Your task to perform on an android device: Open display settings Image 0: 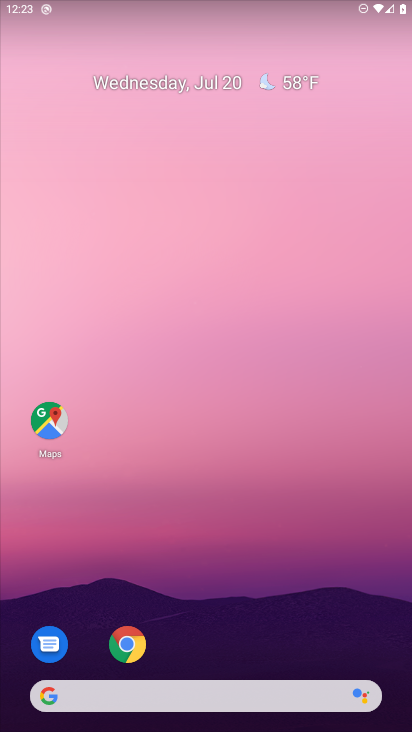
Step 0: drag from (48, 667) to (274, 175)
Your task to perform on an android device: Open display settings Image 1: 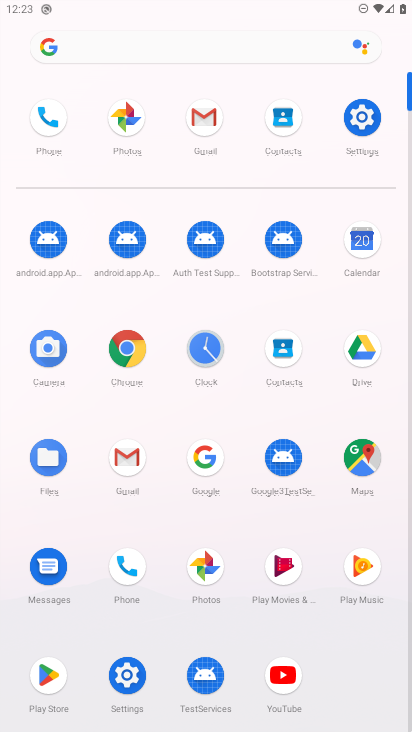
Step 1: click (102, 686)
Your task to perform on an android device: Open display settings Image 2: 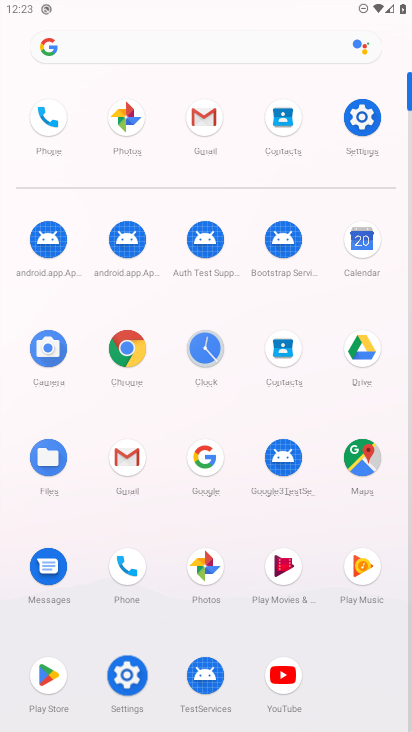
Step 2: click (126, 684)
Your task to perform on an android device: Open display settings Image 3: 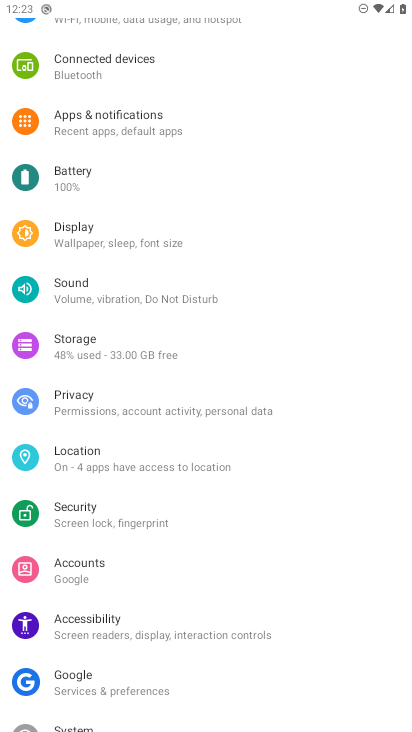
Step 3: drag from (270, 105) to (287, 703)
Your task to perform on an android device: Open display settings Image 4: 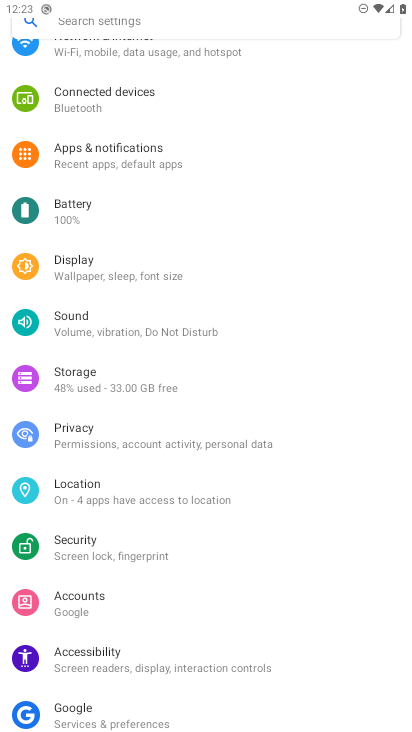
Step 4: click (60, 270)
Your task to perform on an android device: Open display settings Image 5: 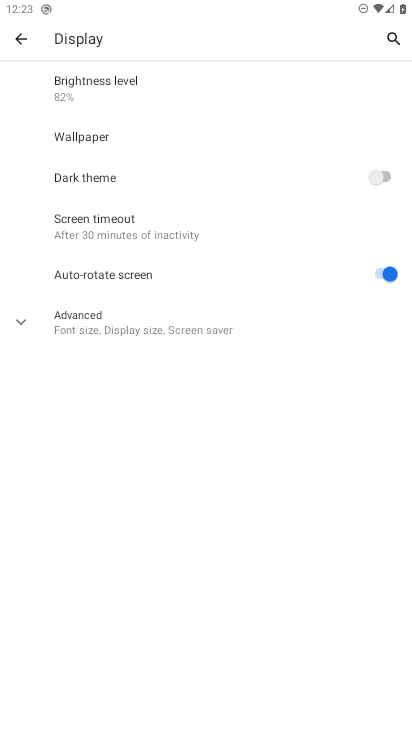
Step 5: task complete